Your task to perform on an android device: Go to CNN.com Image 0: 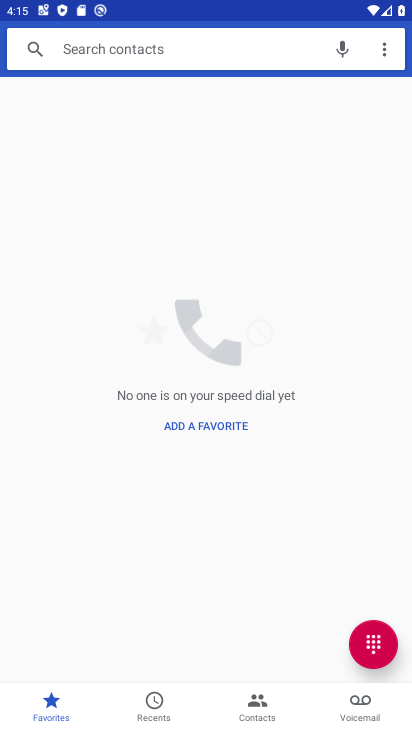
Step 0: press back button
Your task to perform on an android device: Go to CNN.com Image 1: 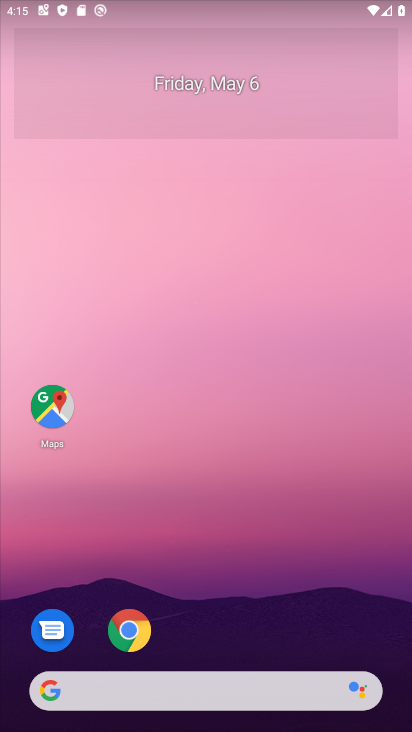
Step 1: click (141, 630)
Your task to perform on an android device: Go to CNN.com Image 2: 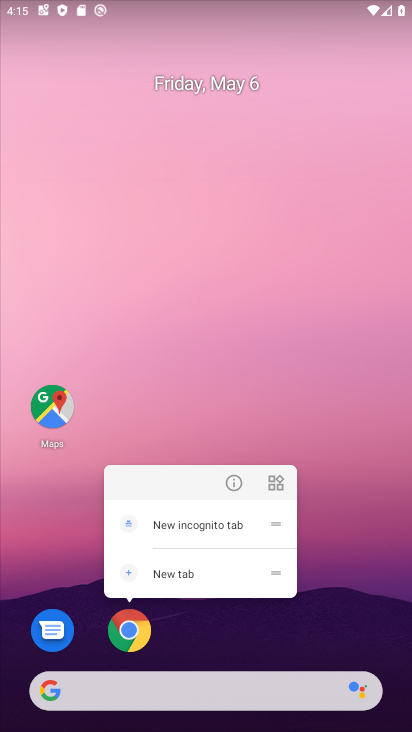
Step 2: click (131, 633)
Your task to perform on an android device: Go to CNN.com Image 3: 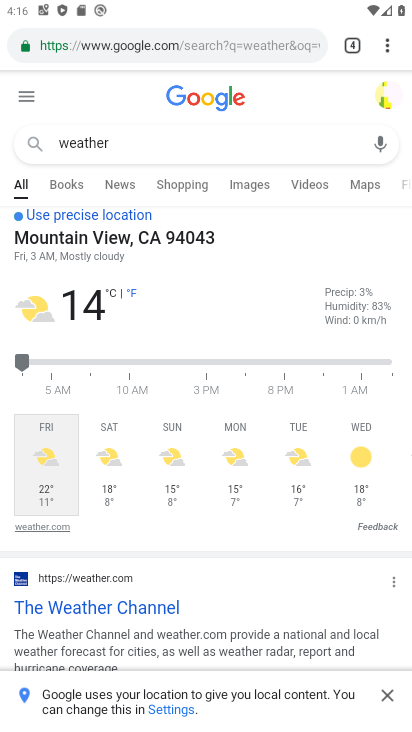
Step 3: click (361, 41)
Your task to perform on an android device: Go to CNN.com Image 4: 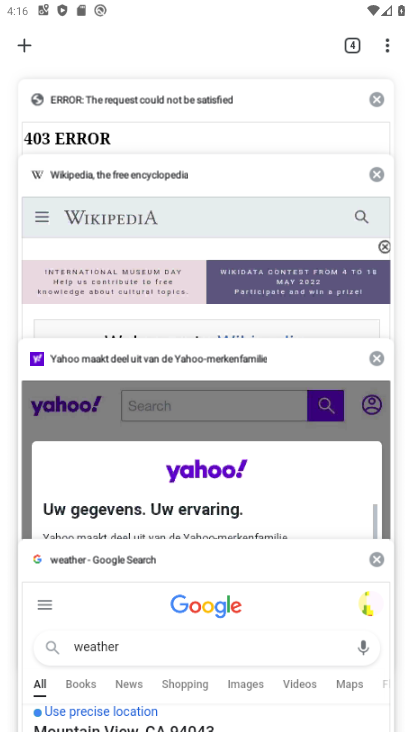
Step 4: click (37, 40)
Your task to perform on an android device: Go to CNN.com Image 5: 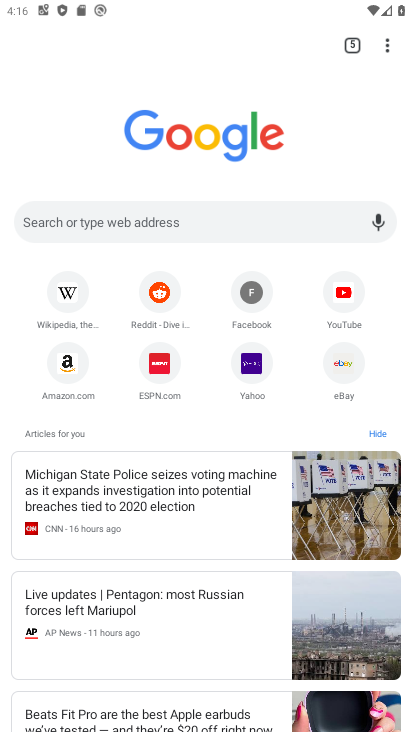
Step 5: type "cnn.com"
Your task to perform on an android device: Go to CNN.com Image 6: 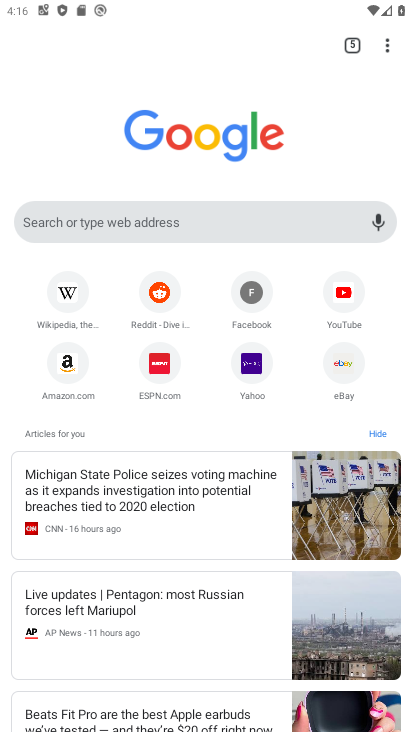
Step 6: click (154, 221)
Your task to perform on an android device: Go to CNN.com Image 7: 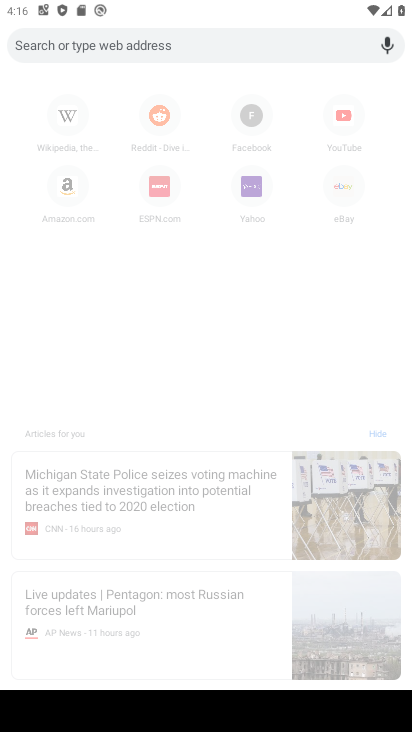
Step 7: click (81, 39)
Your task to perform on an android device: Go to CNN.com Image 8: 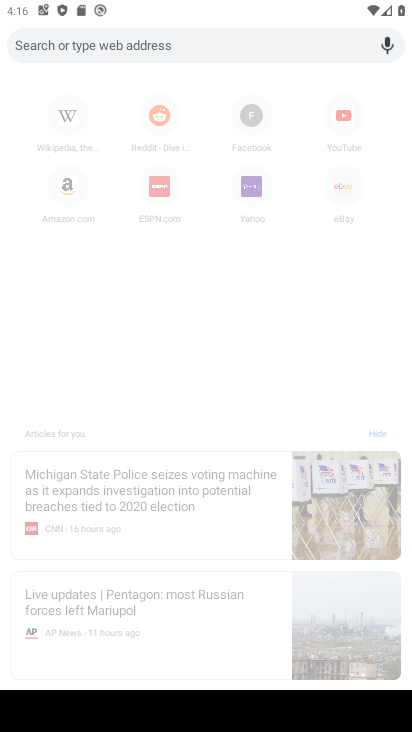
Step 8: type "cnn.com"
Your task to perform on an android device: Go to CNN.com Image 9: 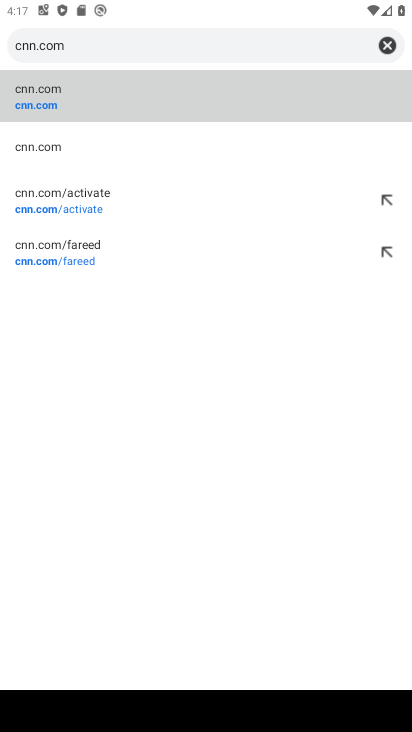
Step 9: click (96, 96)
Your task to perform on an android device: Go to CNN.com Image 10: 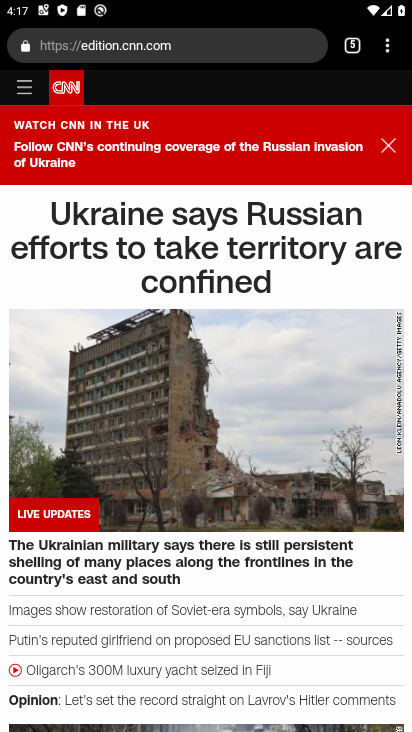
Step 10: task complete